Your task to perform on an android device: create a new album in the google photos Image 0: 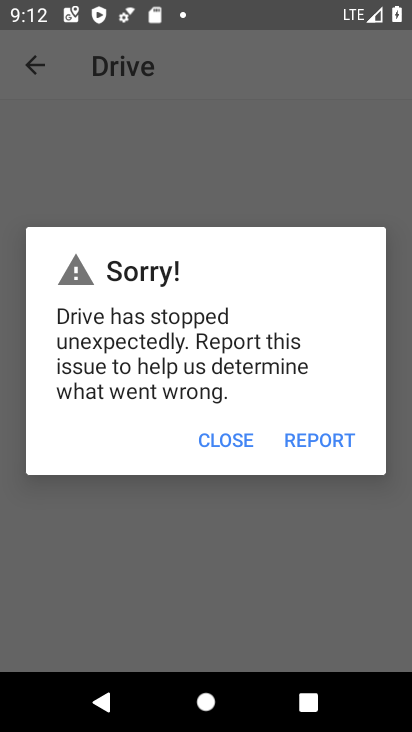
Step 0: press home button
Your task to perform on an android device: create a new album in the google photos Image 1: 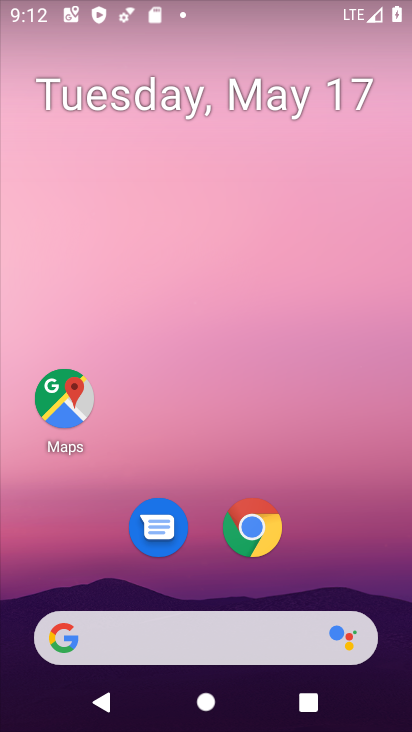
Step 1: drag from (154, 561) to (279, 171)
Your task to perform on an android device: create a new album in the google photos Image 2: 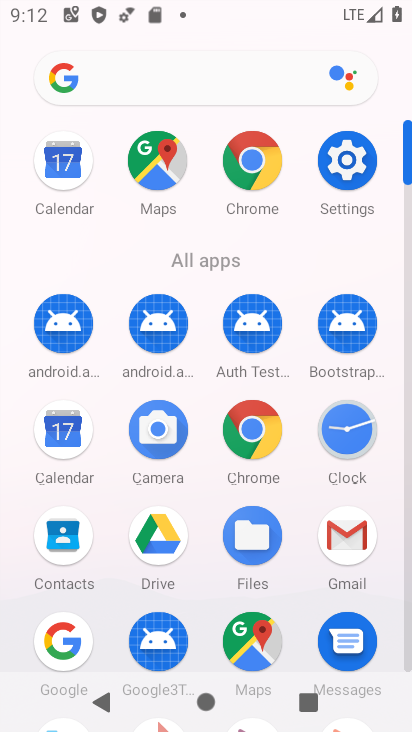
Step 2: drag from (201, 567) to (348, 230)
Your task to perform on an android device: create a new album in the google photos Image 3: 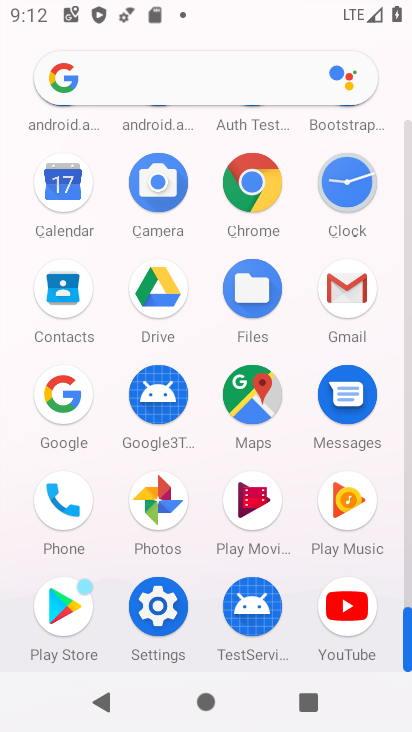
Step 3: click (161, 497)
Your task to perform on an android device: create a new album in the google photos Image 4: 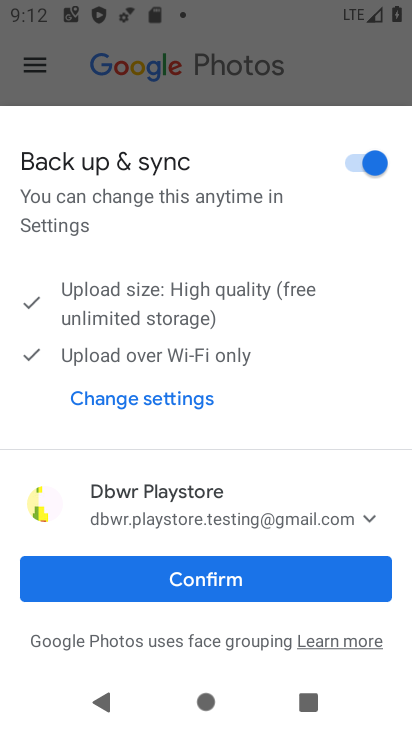
Step 4: click (201, 579)
Your task to perform on an android device: create a new album in the google photos Image 5: 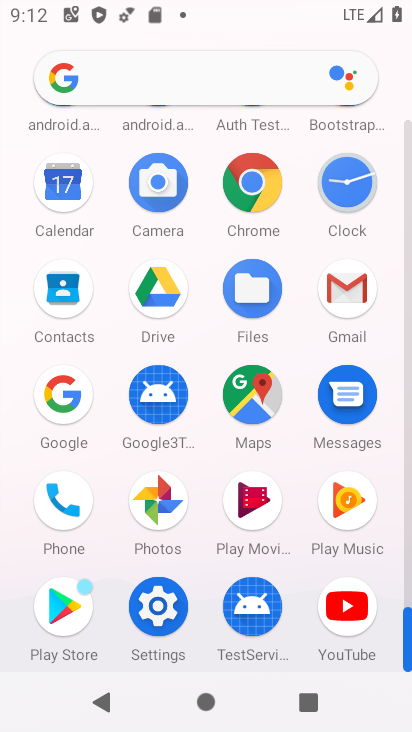
Step 5: click (162, 503)
Your task to perform on an android device: create a new album in the google photos Image 6: 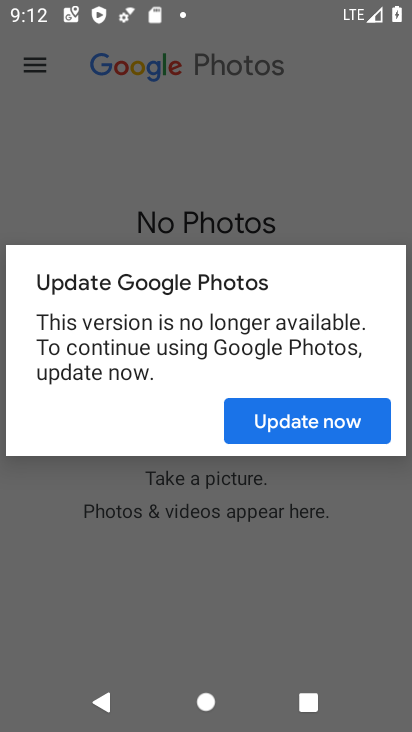
Step 6: click (283, 422)
Your task to perform on an android device: create a new album in the google photos Image 7: 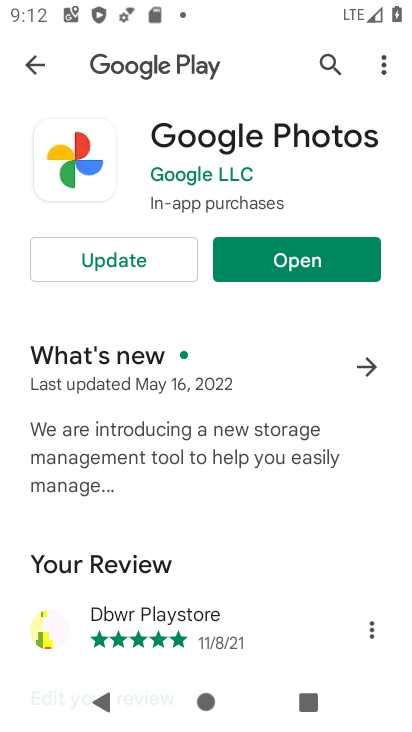
Step 7: click (155, 267)
Your task to perform on an android device: create a new album in the google photos Image 8: 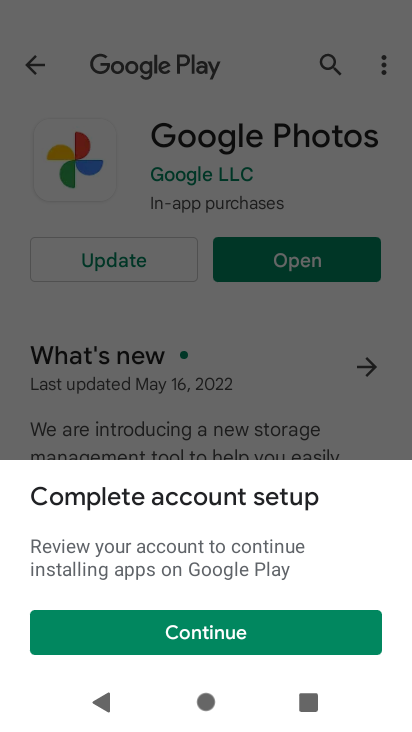
Step 8: click (229, 633)
Your task to perform on an android device: create a new album in the google photos Image 9: 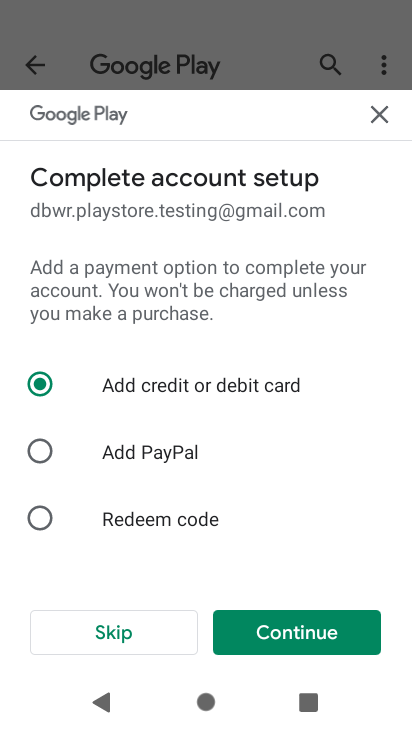
Step 9: click (378, 108)
Your task to perform on an android device: create a new album in the google photos Image 10: 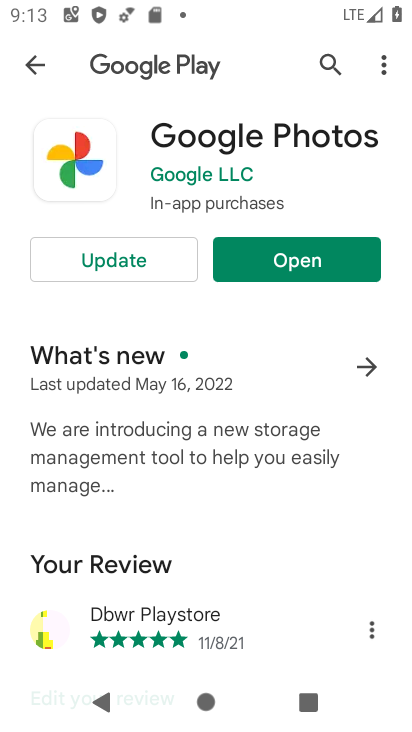
Step 10: click (286, 269)
Your task to perform on an android device: create a new album in the google photos Image 11: 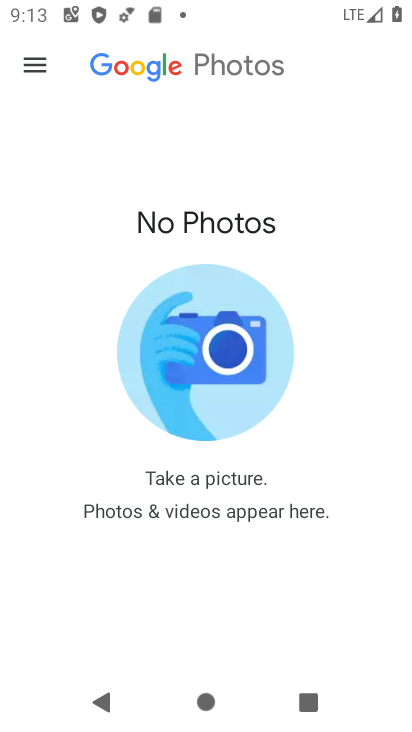
Step 11: click (42, 66)
Your task to perform on an android device: create a new album in the google photos Image 12: 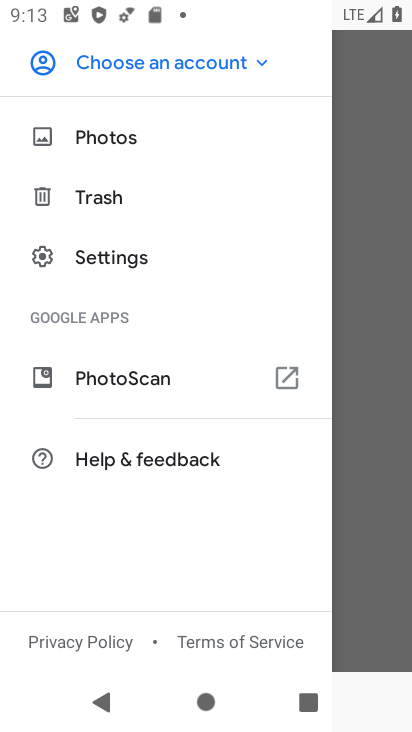
Step 12: click (259, 60)
Your task to perform on an android device: create a new album in the google photos Image 13: 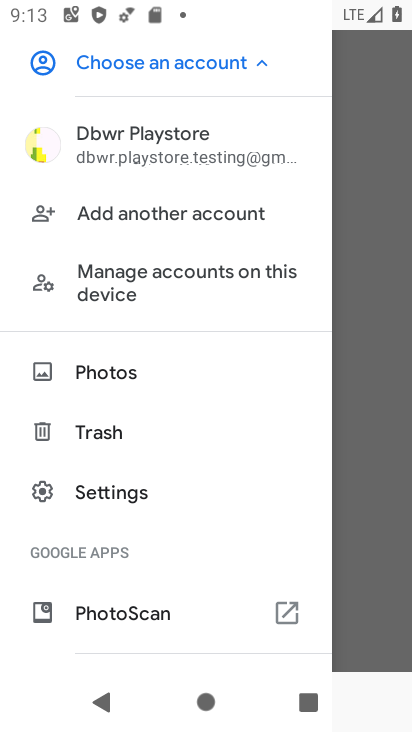
Step 13: click (162, 147)
Your task to perform on an android device: create a new album in the google photos Image 14: 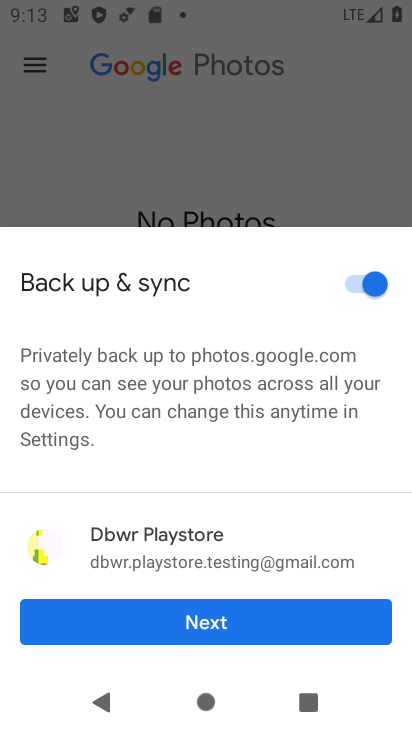
Step 14: click (205, 624)
Your task to perform on an android device: create a new album in the google photos Image 15: 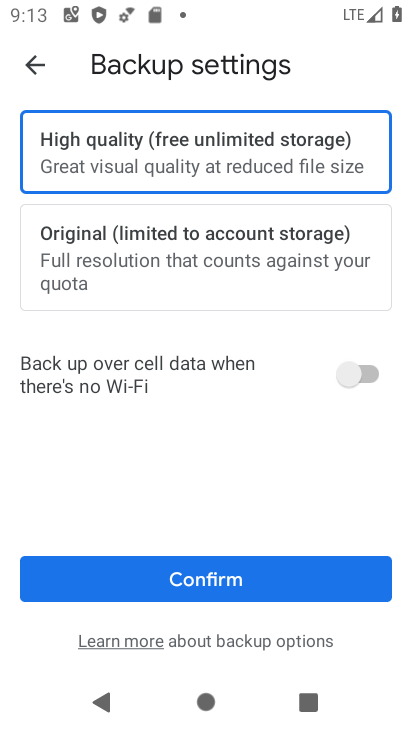
Step 15: click (229, 583)
Your task to perform on an android device: create a new album in the google photos Image 16: 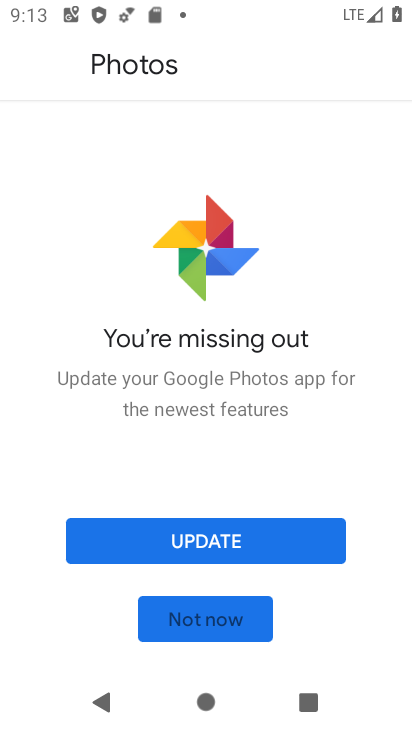
Step 16: click (226, 541)
Your task to perform on an android device: create a new album in the google photos Image 17: 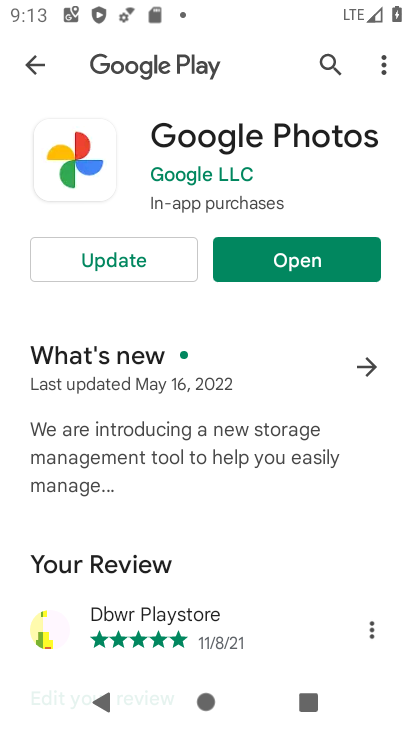
Step 17: click (141, 251)
Your task to perform on an android device: create a new album in the google photos Image 18: 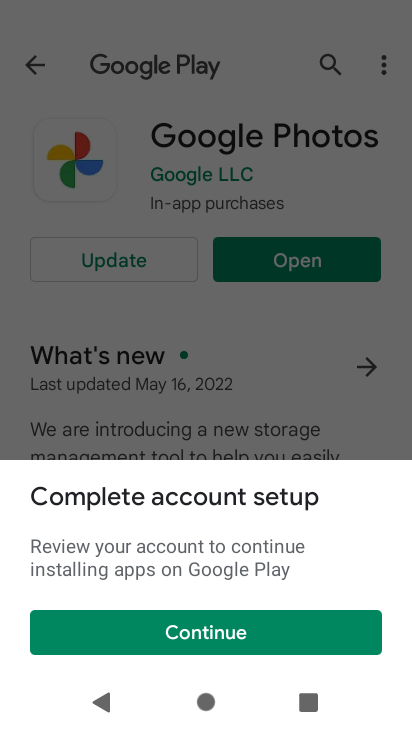
Step 18: click (31, 64)
Your task to perform on an android device: create a new album in the google photos Image 19: 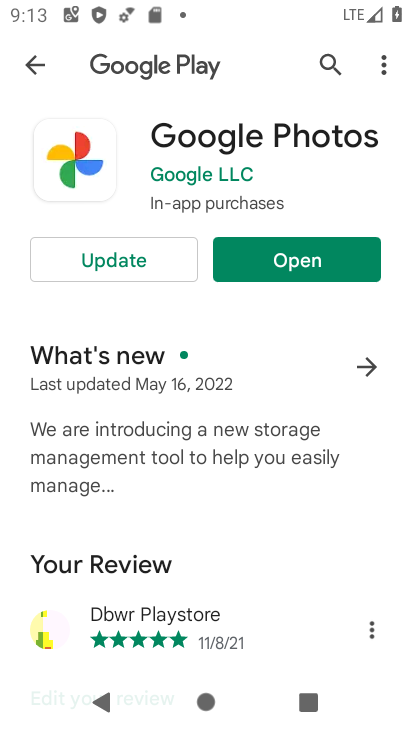
Step 19: click (305, 267)
Your task to perform on an android device: create a new album in the google photos Image 20: 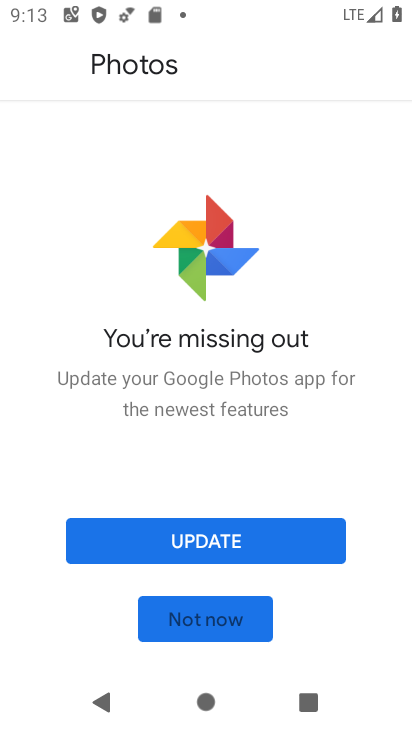
Step 20: click (195, 618)
Your task to perform on an android device: create a new album in the google photos Image 21: 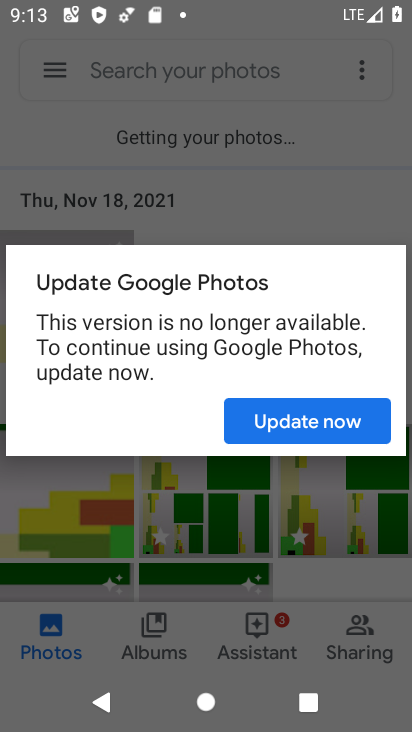
Step 21: click (304, 424)
Your task to perform on an android device: create a new album in the google photos Image 22: 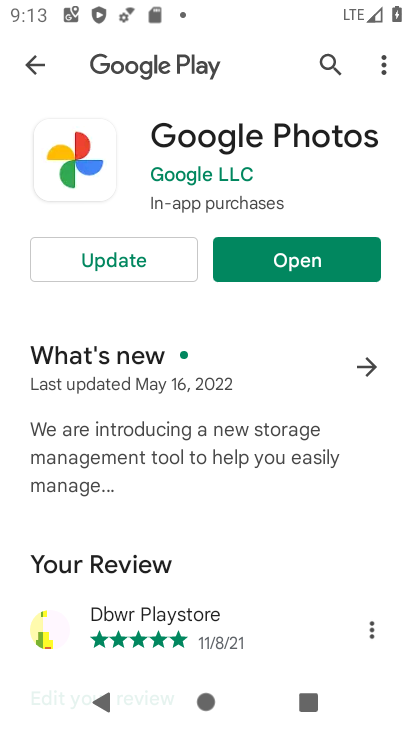
Step 22: click (153, 273)
Your task to perform on an android device: create a new album in the google photos Image 23: 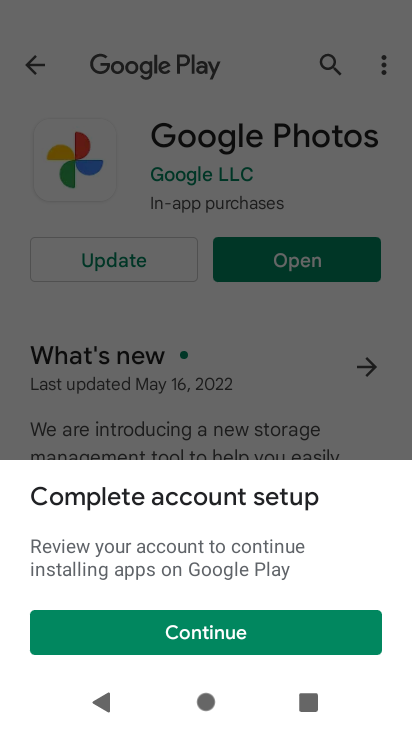
Step 23: task complete